Your task to perform on an android device: Clear all items from cart on walmart. Add razer blade to the cart on walmart Image 0: 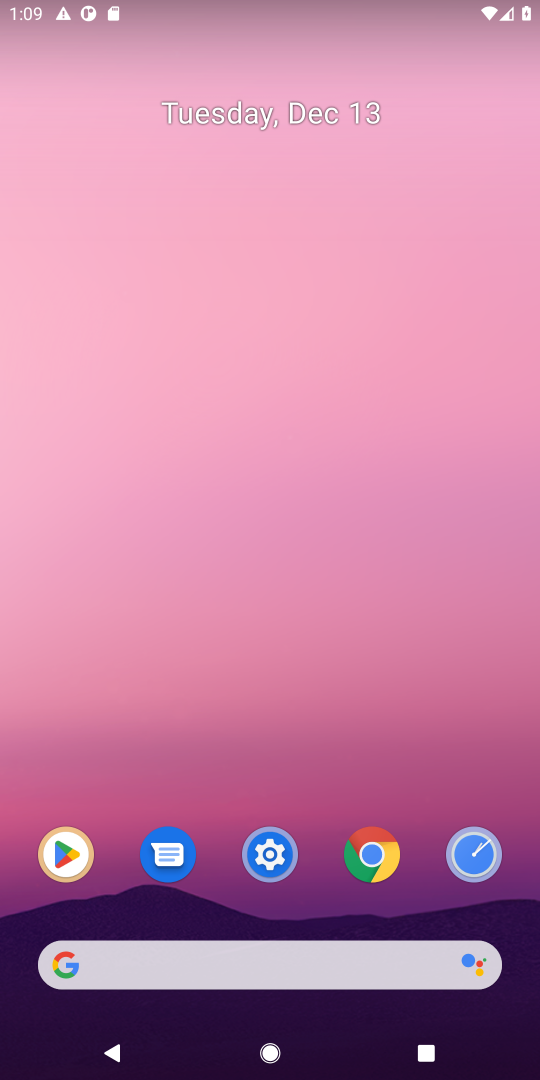
Step 0: click (391, 976)
Your task to perform on an android device: Clear all items from cart on walmart. Add razer blade to the cart on walmart Image 1: 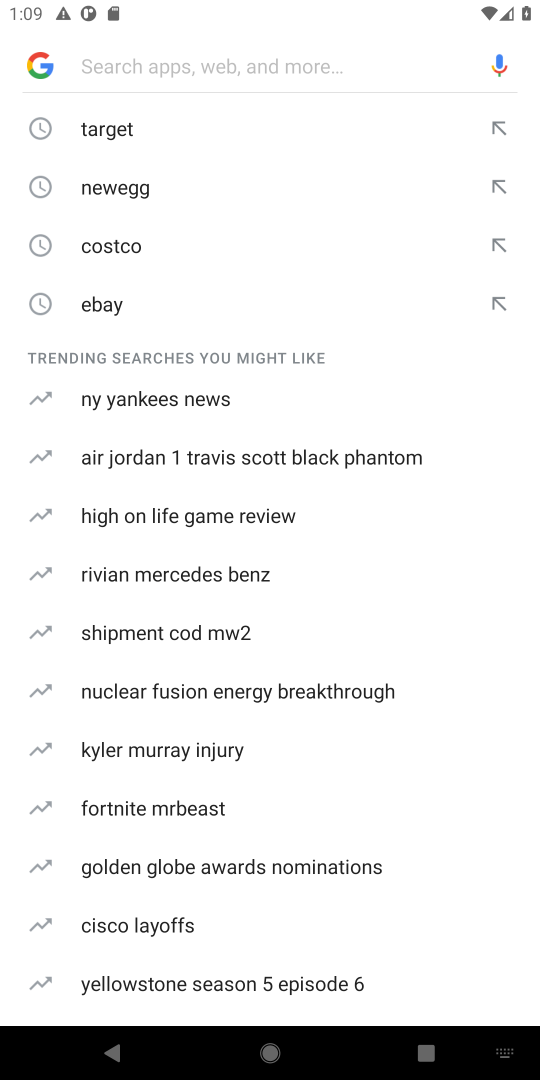
Step 1: type "walmart"
Your task to perform on an android device: Clear all items from cart on walmart. Add razer blade to the cart on walmart Image 2: 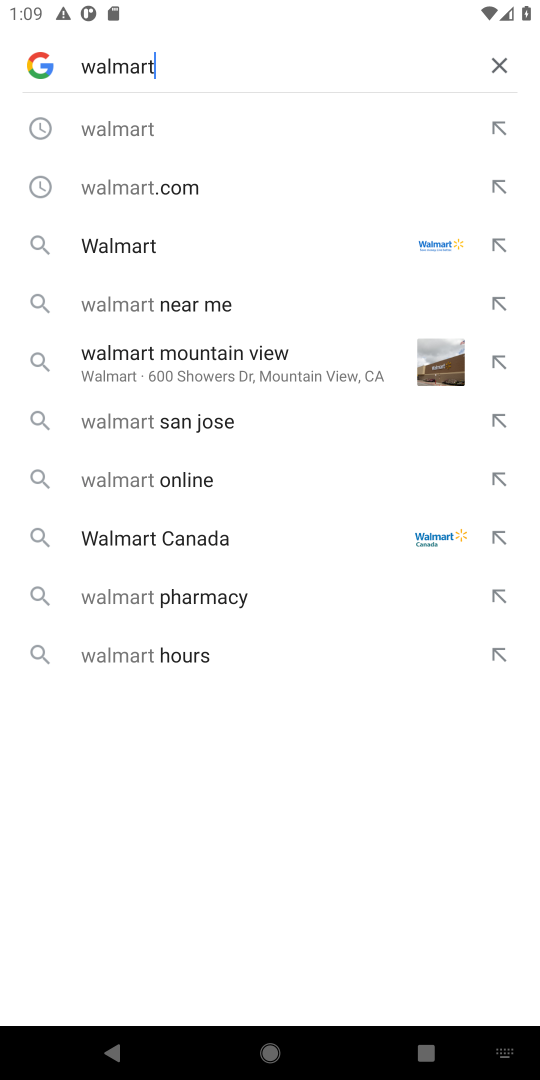
Step 2: click (216, 258)
Your task to perform on an android device: Clear all items from cart on walmart. Add razer blade to the cart on walmart Image 3: 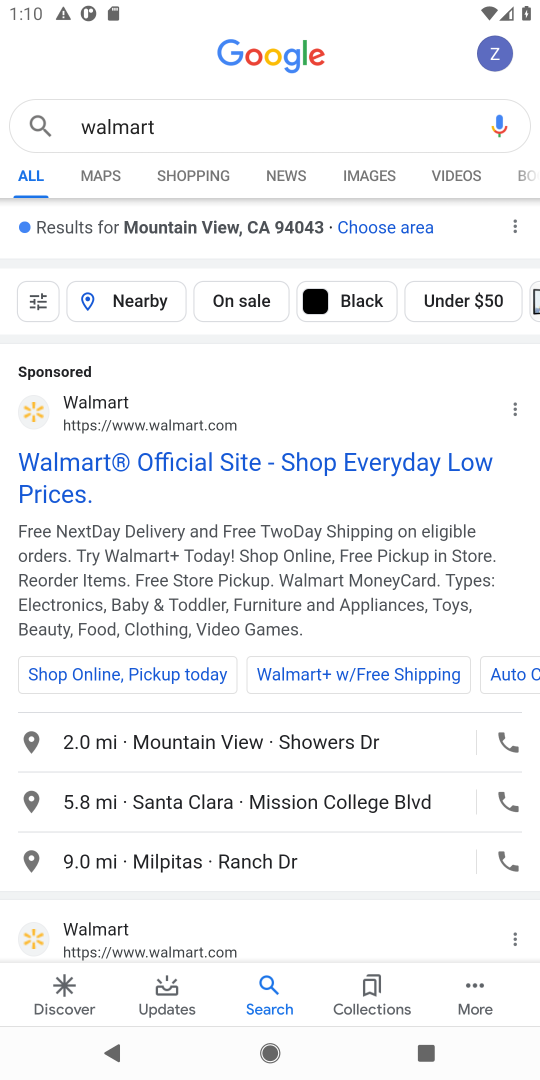
Step 3: click (153, 484)
Your task to perform on an android device: Clear all items from cart on walmart. Add razer blade to the cart on walmart Image 4: 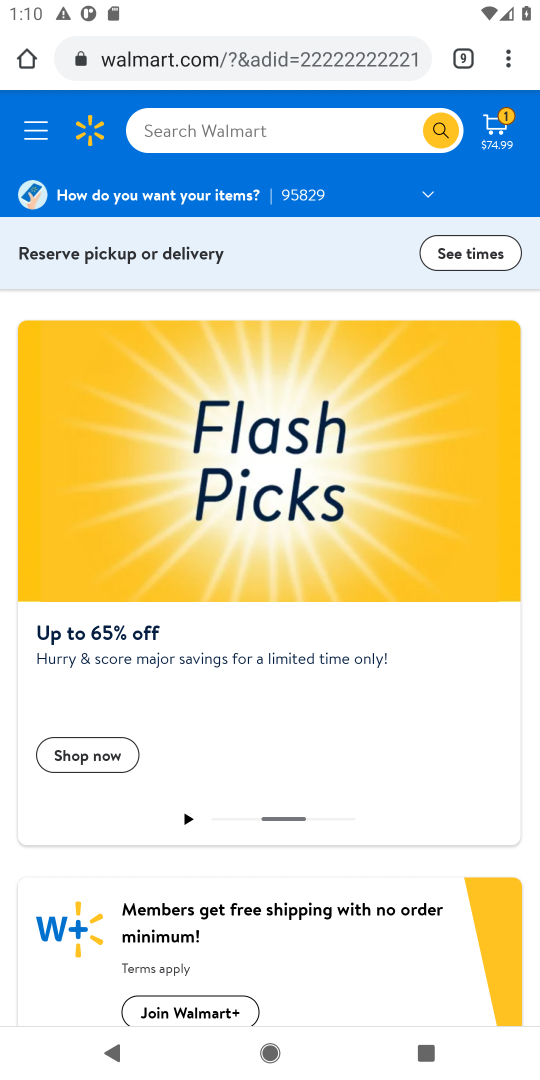
Step 4: click (166, 141)
Your task to perform on an android device: Clear all items from cart on walmart. Add razer blade to the cart on walmart Image 5: 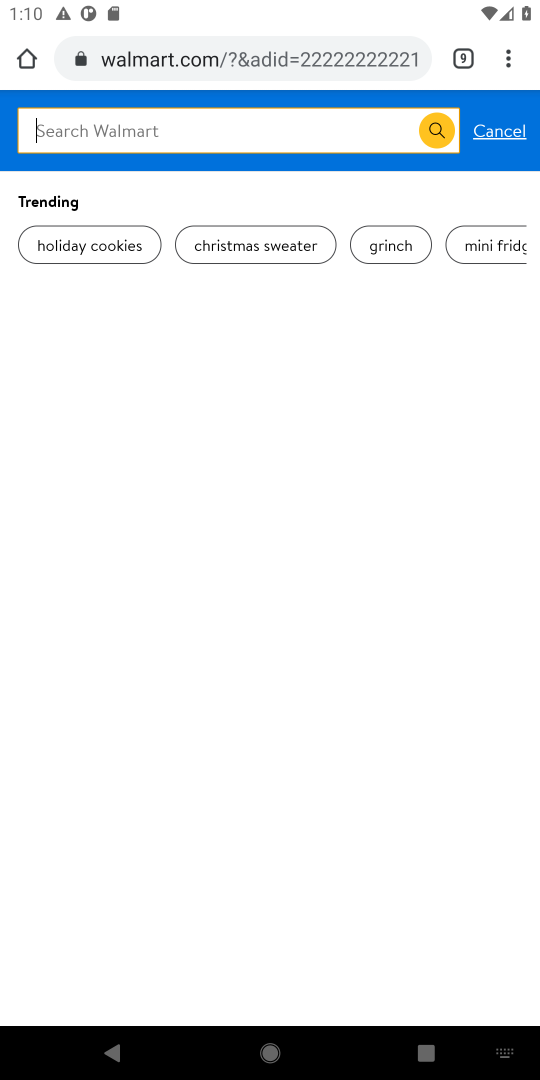
Step 5: type "razer"
Your task to perform on an android device: Clear all items from cart on walmart. Add razer blade to the cart on walmart Image 6: 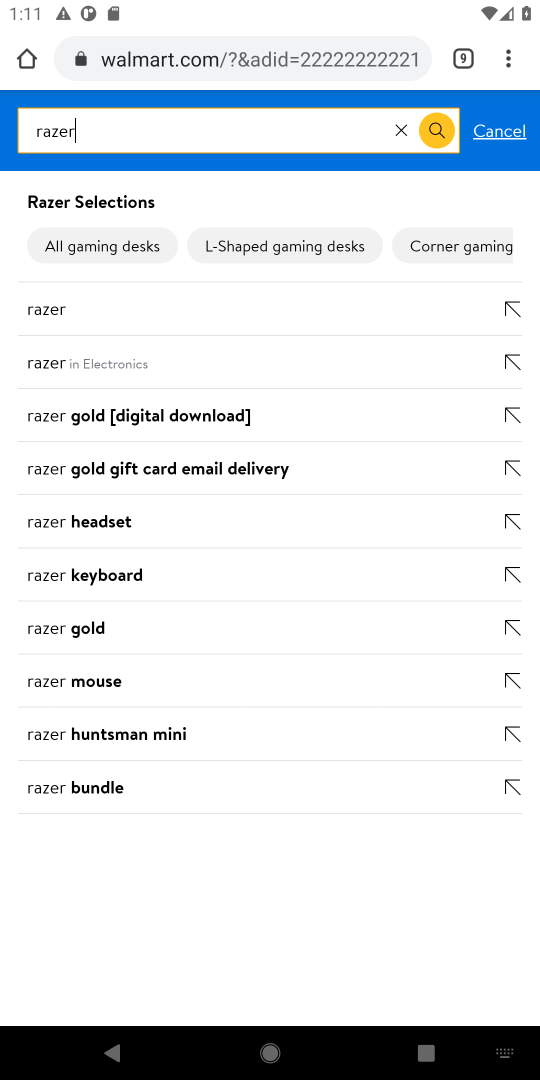
Step 6: click (109, 320)
Your task to perform on an android device: Clear all items from cart on walmart. Add razer blade to the cart on walmart Image 7: 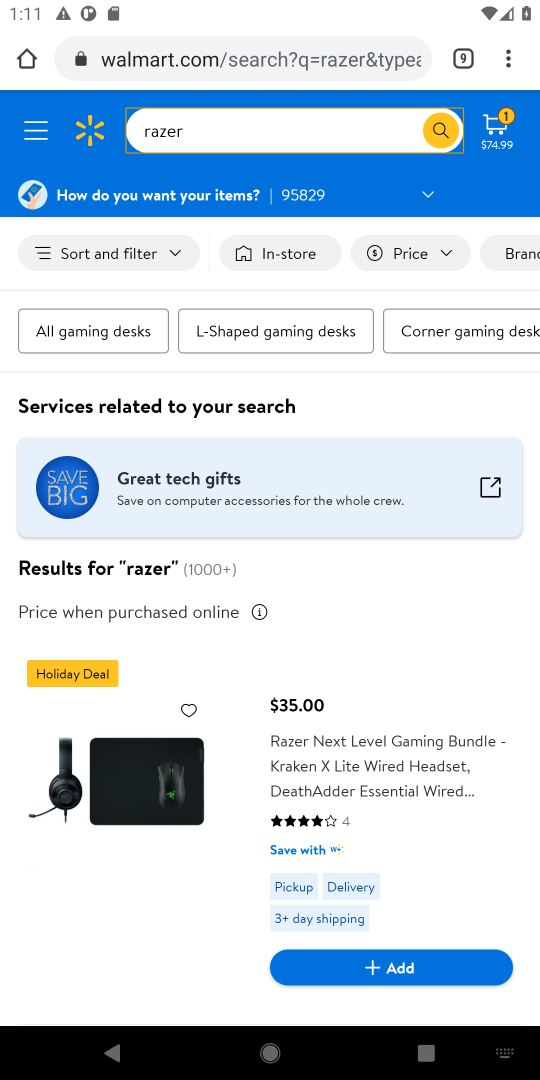
Step 7: click (409, 957)
Your task to perform on an android device: Clear all items from cart on walmart. Add razer blade to the cart on walmart Image 8: 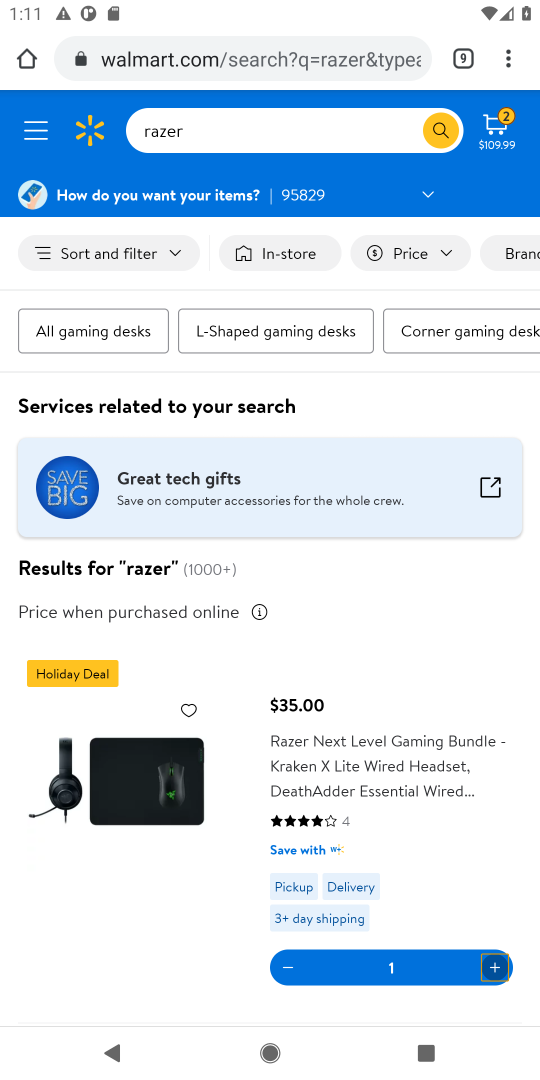
Step 8: task complete